Your task to perform on an android device: Open Google Chrome and open the bookmarks view Image 0: 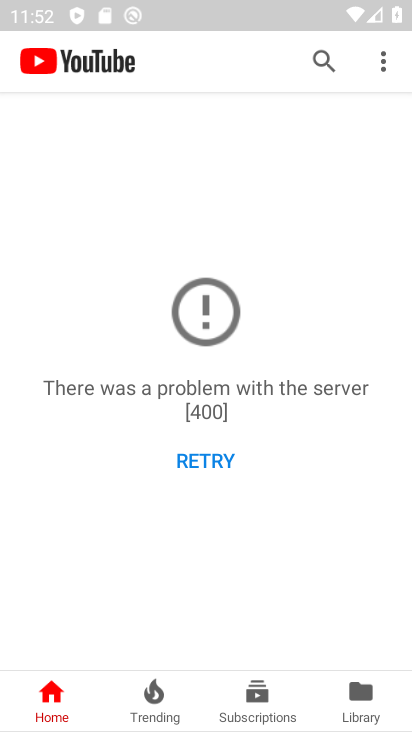
Step 0: press home button
Your task to perform on an android device: Open Google Chrome and open the bookmarks view Image 1: 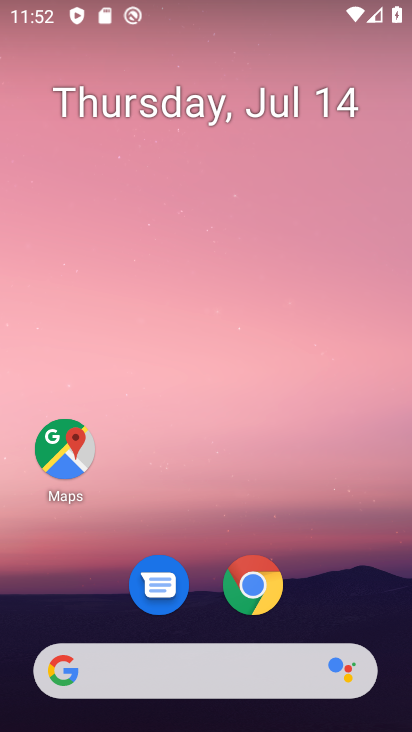
Step 1: click (259, 585)
Your task to perform on an android device: Open Google Chrome and open the bookmarks view Image 2: 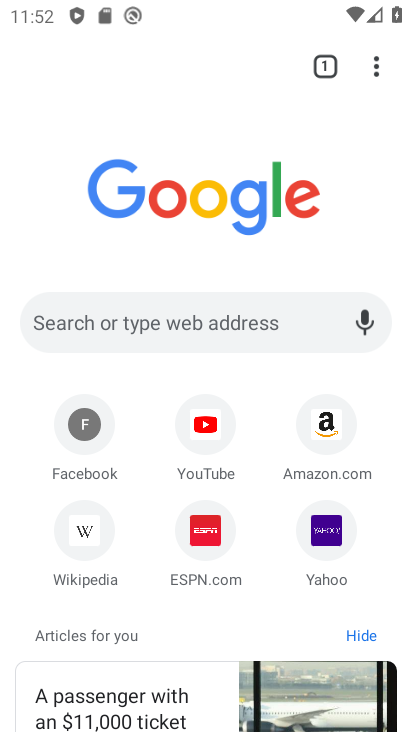
Step 2: click (376, 69)
Your task to perform on an android device: Open Google Chrome and open the bookmarks view Image 3: 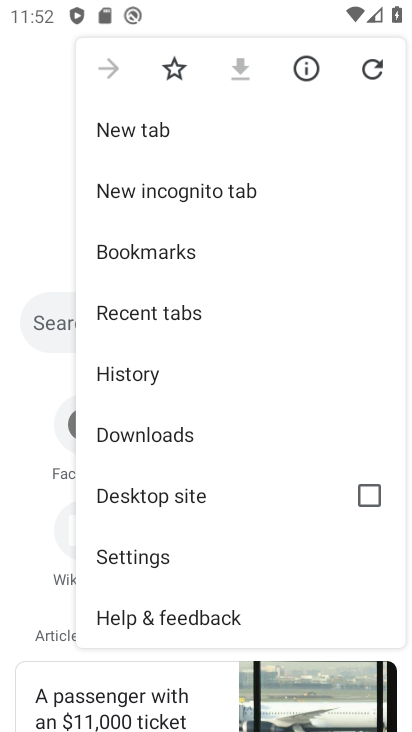
Step 3: click (194, 249)
Your task to perform on an android device: Open Google Chrome and open the bookmarks view Image 4: 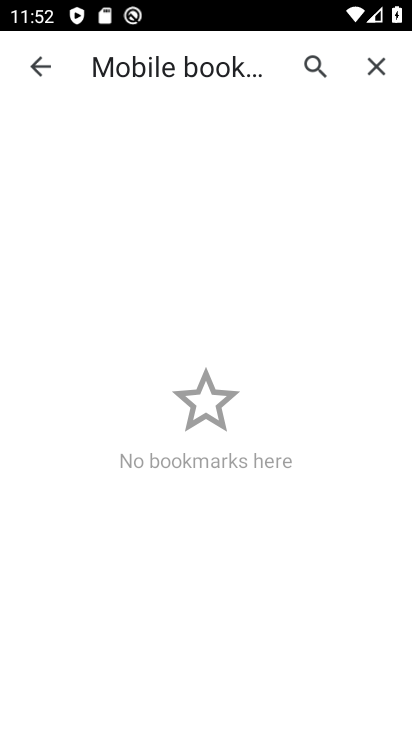
Step 4: task complete